Your task to perform on an android device: visit the assistant section in the google photos Image 0: 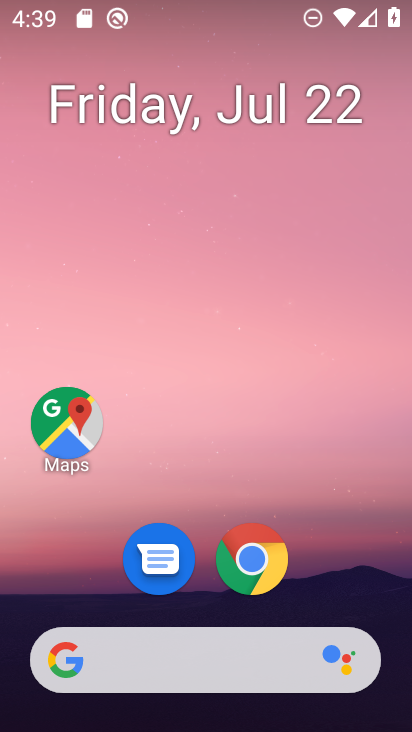
Step 0: drag from (92, 589) to (252, 73)
Your task to perform on an android device: visit the assistant section in the google photos Image 1: 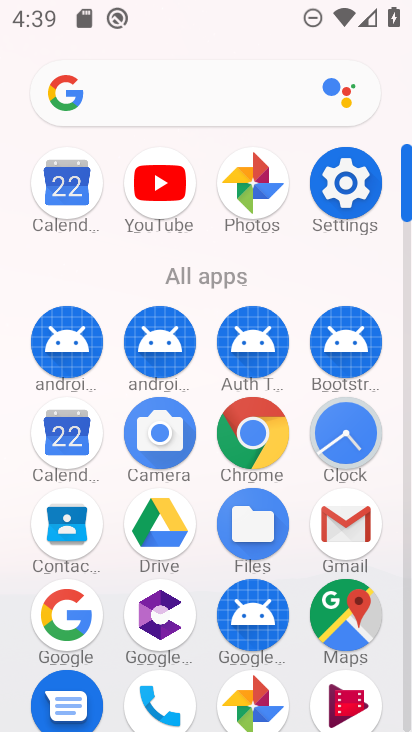
Step 1: drag from (181, 624) to (255, 332)
Your task to perform on an android device: visit the assistant section in the google photos Image 2: 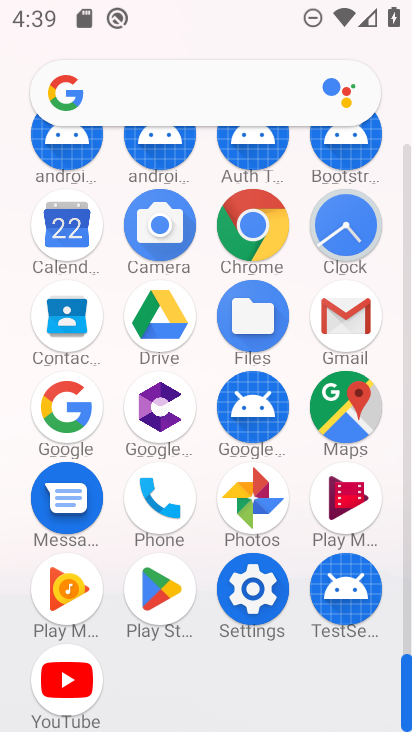
Step 2: click (247, 494)
Your task to perform on an android device: visit the assistant section in the google photos Image 3: 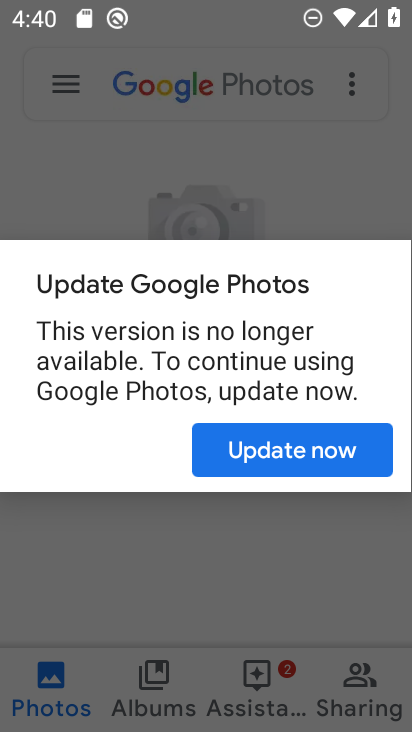
Step 3: click (256, 456)
Your task to perform on an android device: visit the assistant section in the google photos Image 4: 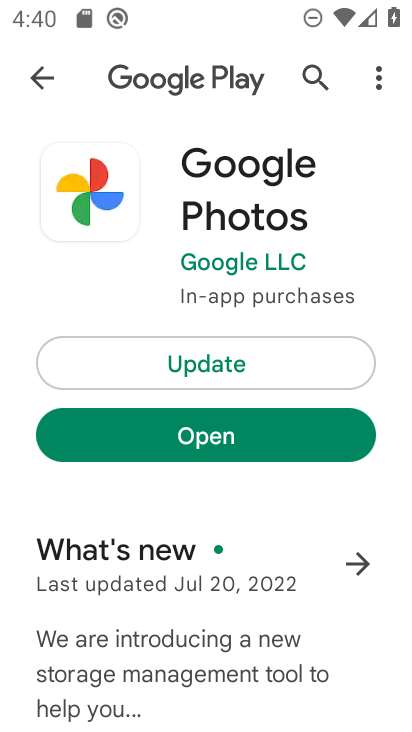
Step 4: click (232, 449)
Your task to perform on an android device: visit the assistant section in the google photos Image 5: 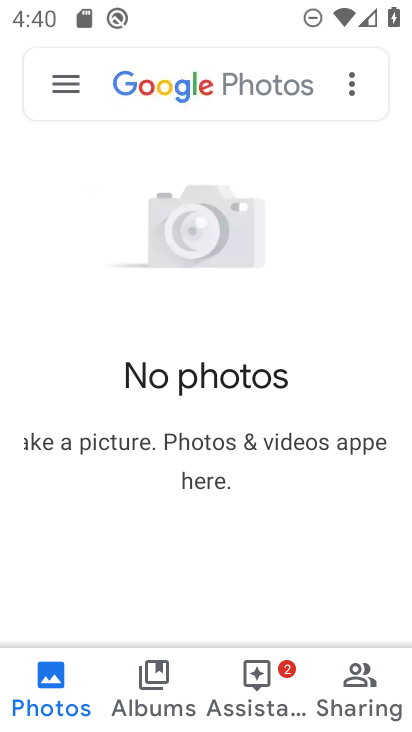
Step 5: click (258, 715)
Your task to perform on an android device: visit the assistant section in the google photos Image 6: 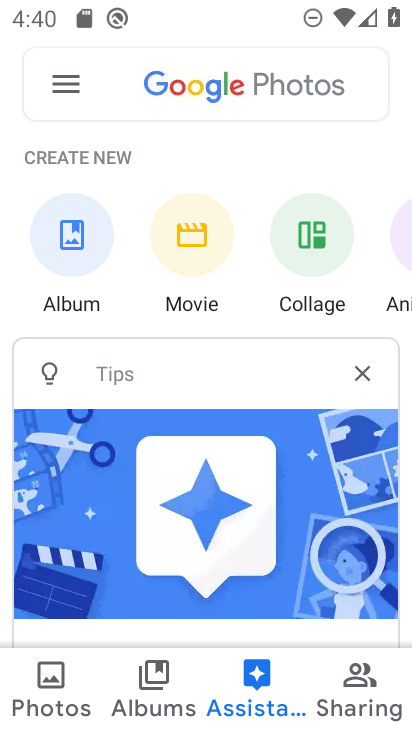
Step 6: task complete